Your task to perform on an android device: What's on my calendar today? Image 0: 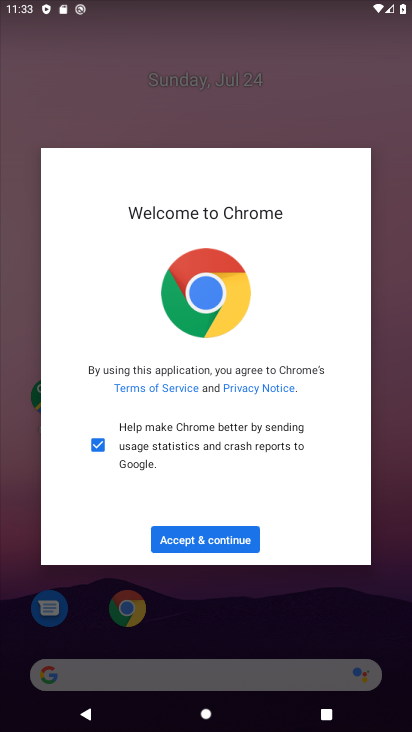
Step 0: press home button
Your task to perform on an android device: What's on my calendar today? Image 1: 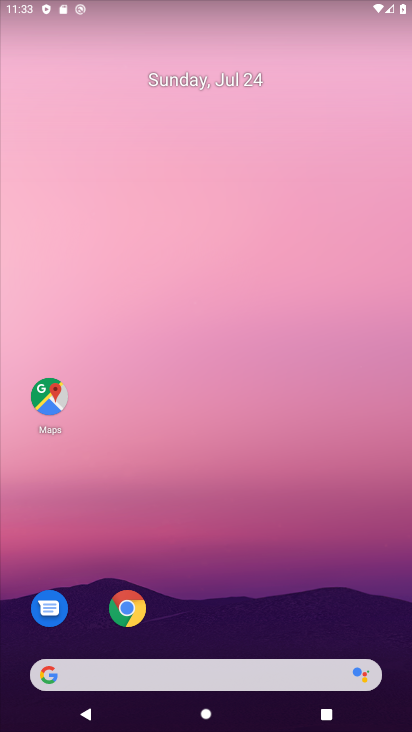
Step 1: drag from (271, 550) to (410, 100)
Your task to perform on an android device: What's on my calendar today? Image 2: 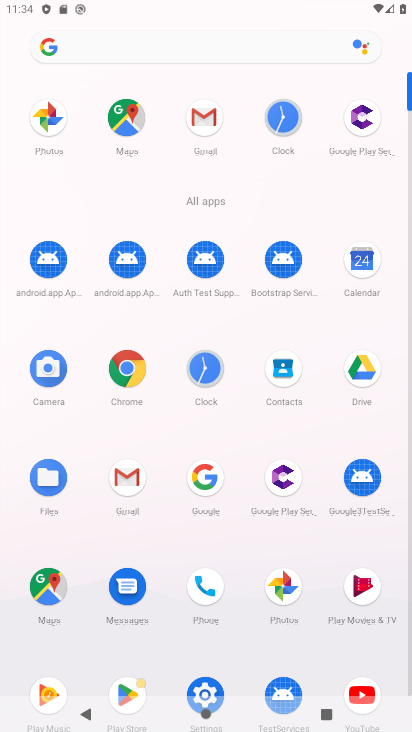
Step 2: click (355, 283)
Your task to perform on an android device: What's on my calendar today? Image 3: 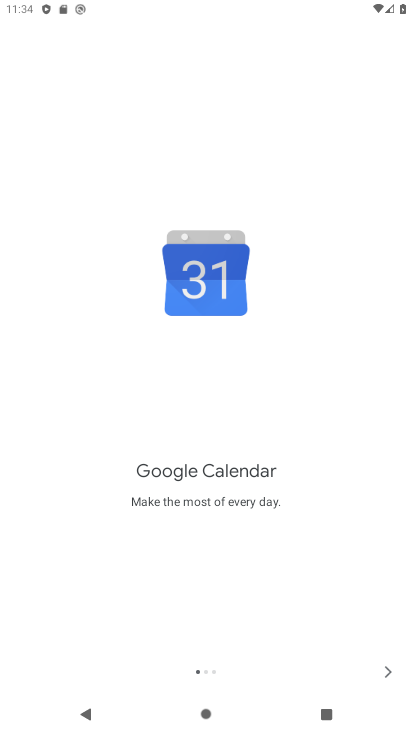
Step 3: click (387, 663)
Your task to perform on an android device: What's on my calendar today? Image 4: 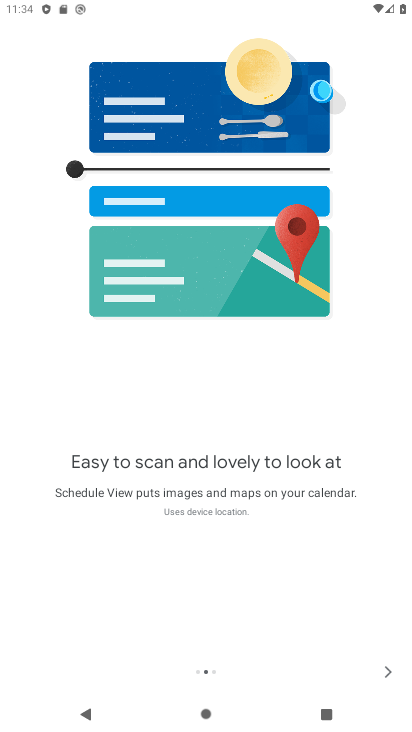
Step 4: click (402, 677)
Your task to perform on an android device: What's on my calendar today? Image 5: 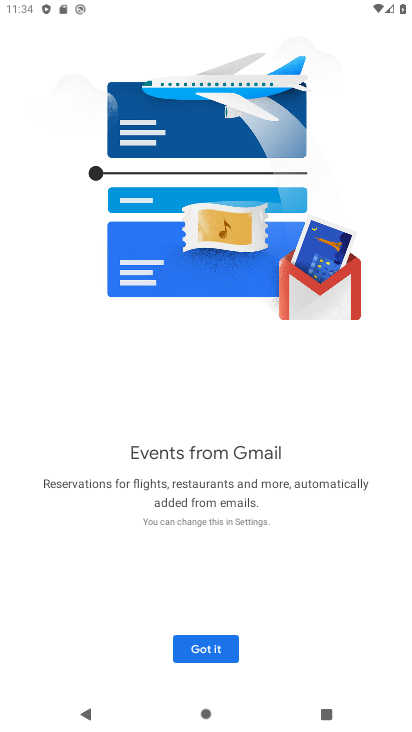
Step 5: click (222, 653)
Your task to perform on an android device: What's on my calendar today? Image 6: 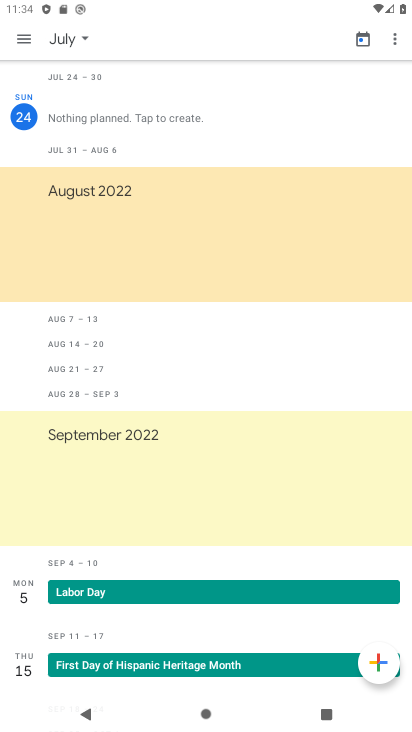
Step 6: task complete